Your task to perform on an android device: turn pop-ups on in chrome Image 0: 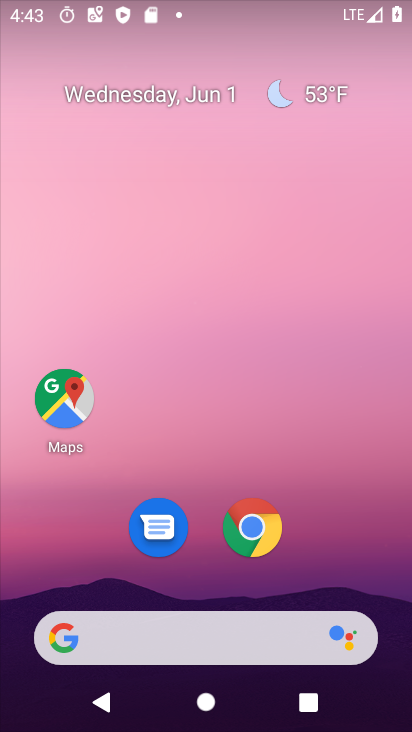
Step 0: drag from (294, 560) to (373, 62)
Your task to perform on an android device: turn pop-ups on in chrome Image 1: 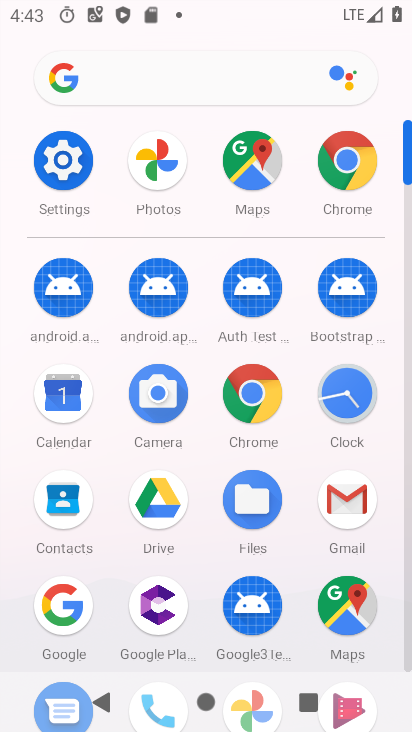
Step 1: click (263, 384)
Your task to perform on an android device: turn pop-ups on in chrome Image 2: 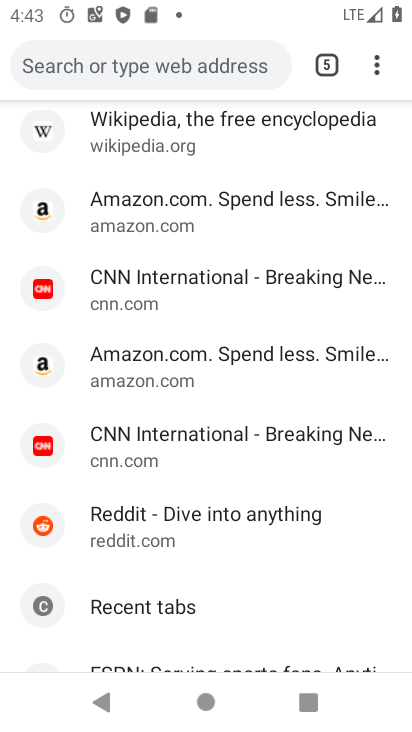
Step 2: drag from (377, 63) to (175, 539)
Your task to perform on an android device: turn pop-ups on in chrome Image 3: 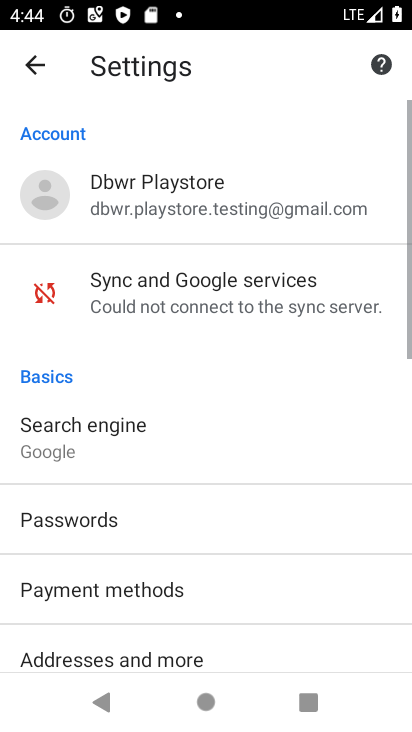
Step 3: drag from (274, 551) to (318, 142)
Your task to perform on an android device: turn pop-ups on in chrome Image 4: 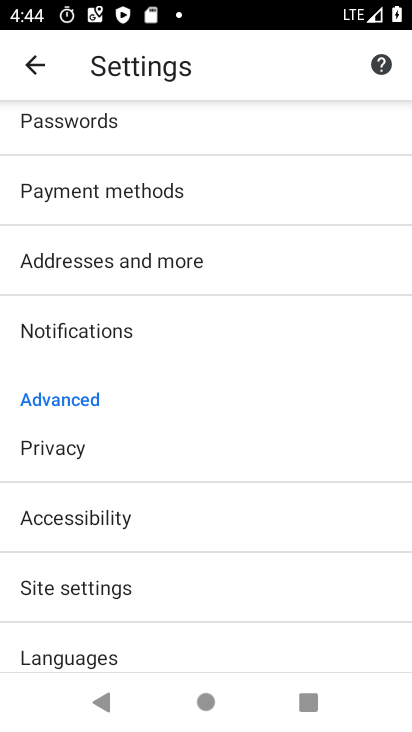
Step 4: click (74, 586)
Your task to perform on an android device: turn pop-ups on in chrome Image 5: 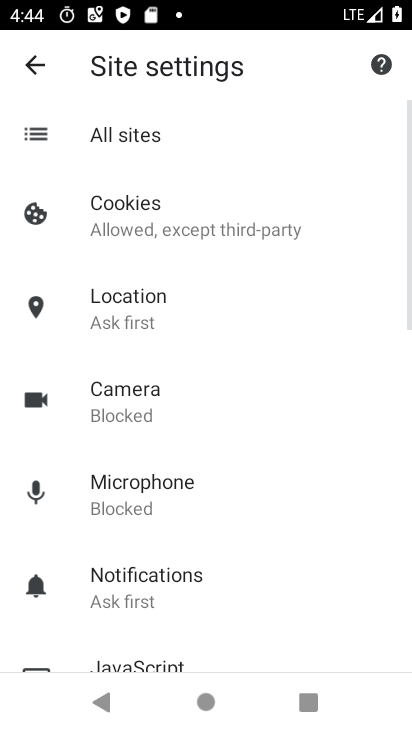
Step 5: drag from (207, 569) to (267, 188)
Your task to perform on an android device: turn pop-ups on in chrome Image 6: 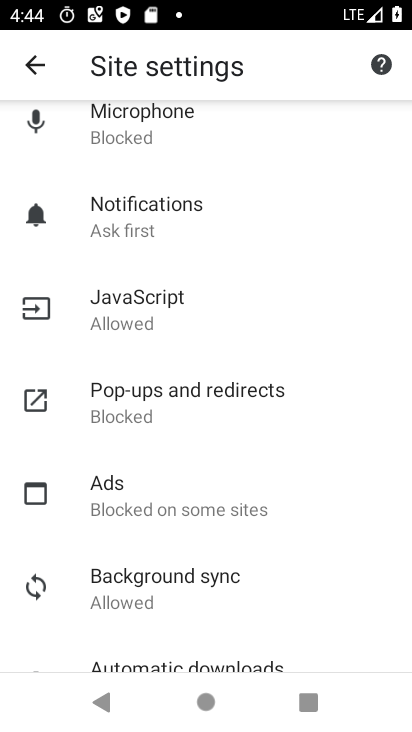
Step 6: click (210, 388)
Your task to perform on an android device: turn pop-ups on in chrome Image 7: 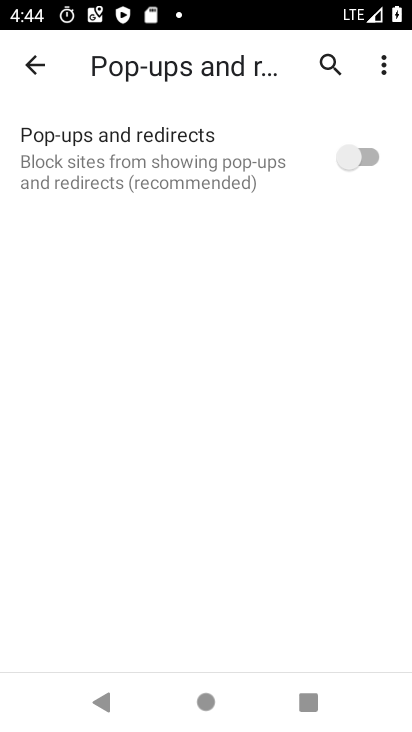
Step 7: click (359, 147)
Your task to perform on an android device: turn pop-ups on in chrome Image 8: 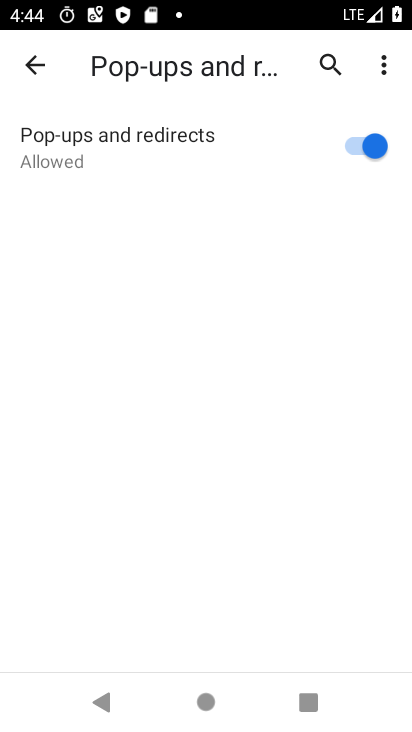
Step 8: task complete